Your task to perform on an android device: check storage Image 0: 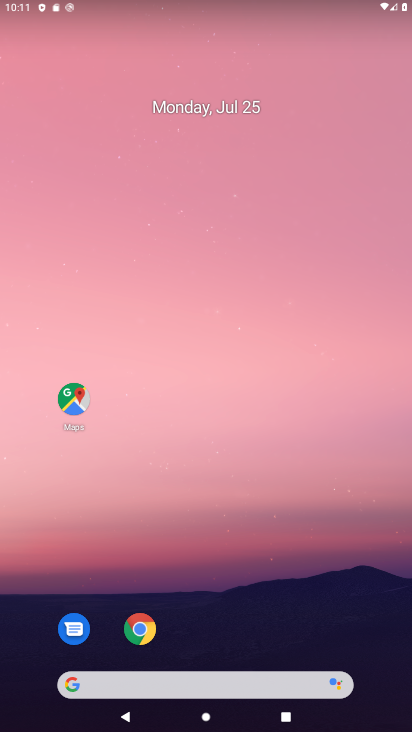
Step 0: drag from (239, 652) to (271, 19)
Your task to perform on an android device: check storage Image 1: 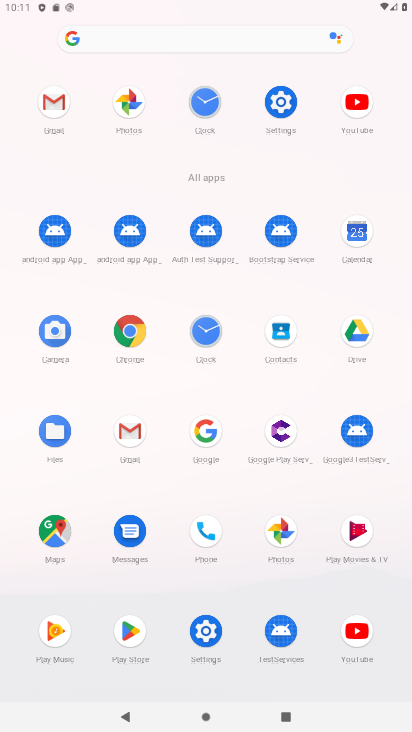
Step 1: click (276, 107)
Your task to perform on an android device: check storage Image 2: 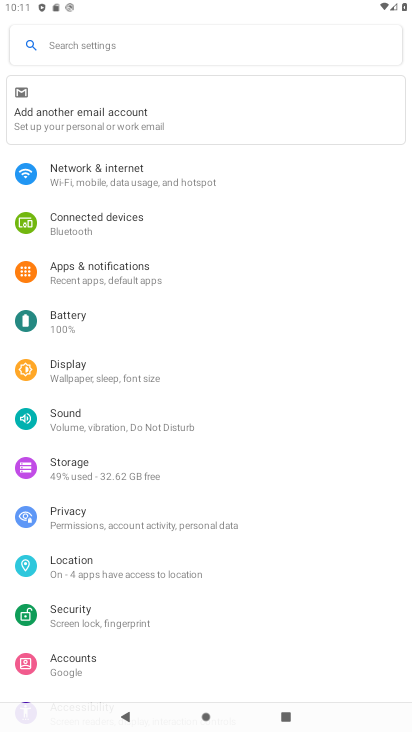
Step 2: click (65, 468)
Your task to perform on an android device: check storage Image 3: 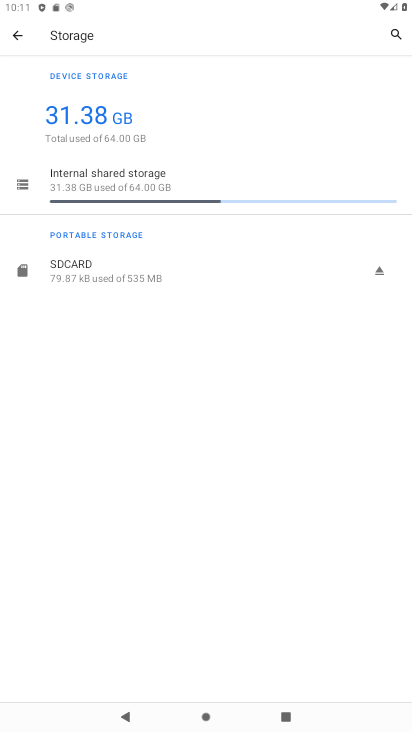
Step 3: task complete